Your task to perform on an android device: set the timer Image 0: 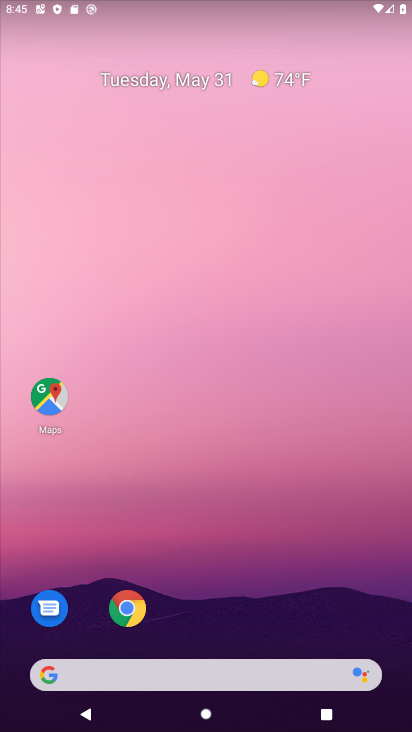
Step 0: drag from (208, 648) to (199, 129)
Your task to perform on an android device: set the timer Image 1: 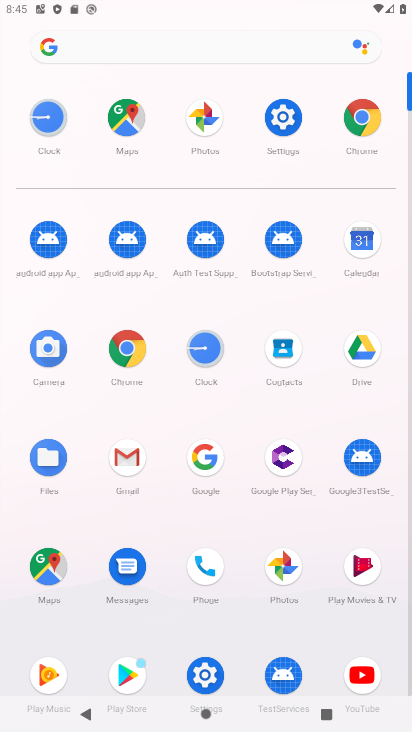
Step 1: click (205, 363)
Your task to perform on an android device: set the timer Image 2: 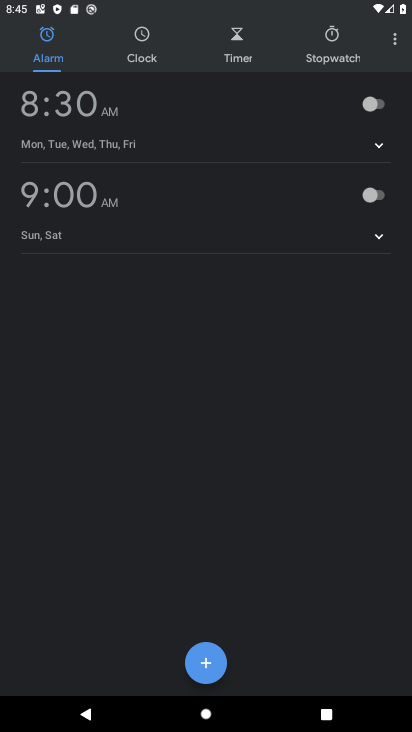
Step 2: click (391, 41)
Your task to perform on an android device: set the timer Image 3: 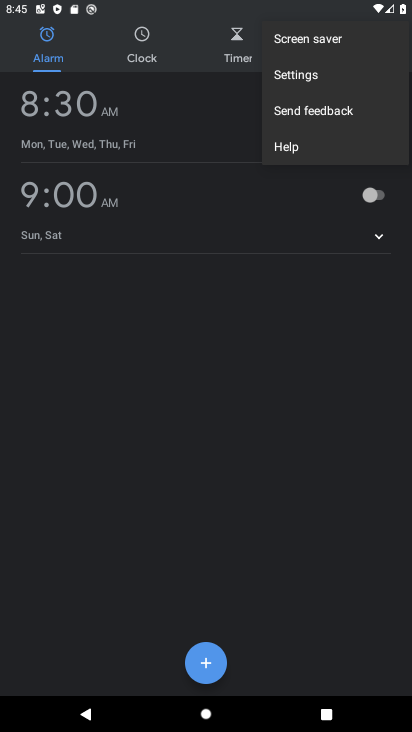
Step 3: click (298, 86)
Your task to perform on an android device: set the timer Image 4: 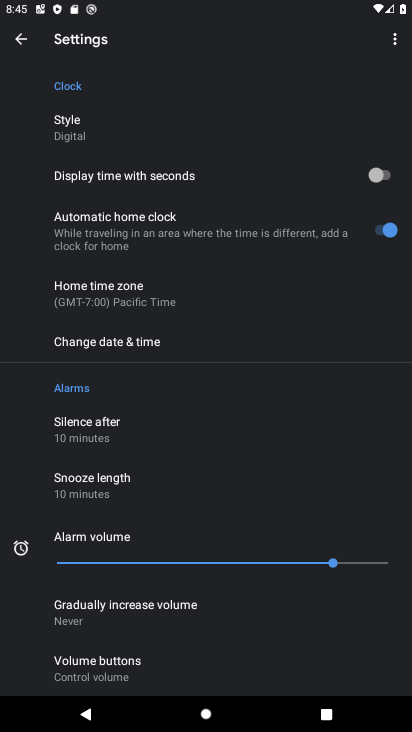
Step 4: drag from (130, 529) to (66, 130)
Your task to perform on an android device: set the timer Image 5: 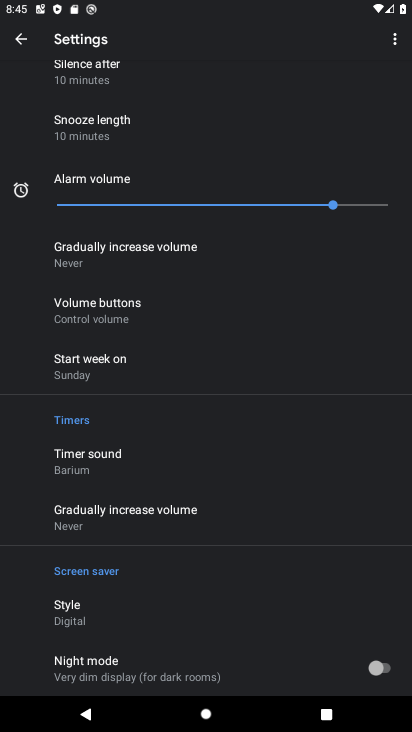
Step 5: click (80, 443)
Your task to perform on an android device: set the timer Image 6: 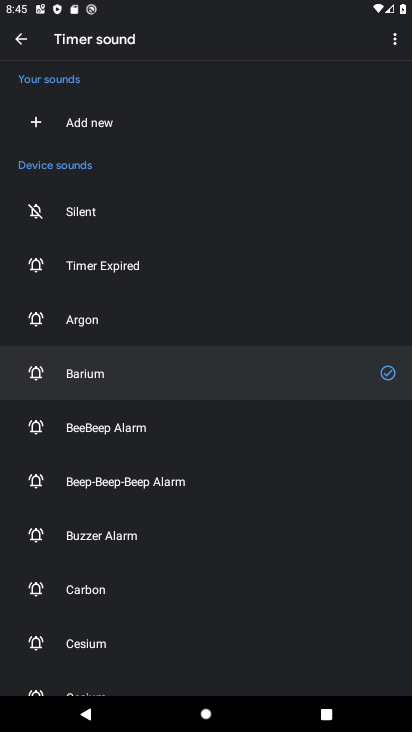
Step 6: click (13, 43)
Your task to perform on an android device: set the timer Image 7: 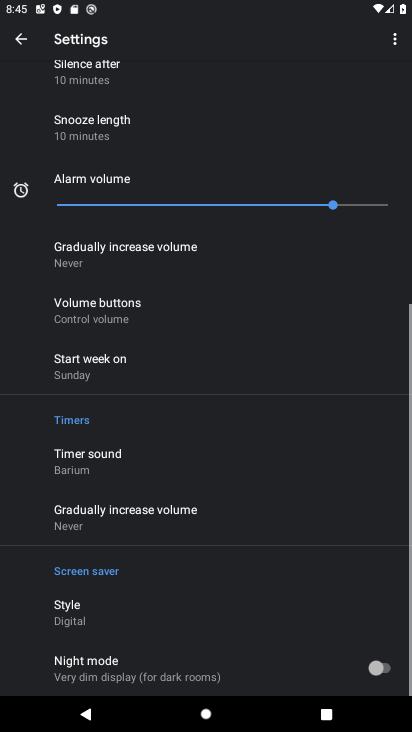
Step 7: click (31, 43)
Your task to perform on an android device: set the timer Image 8: 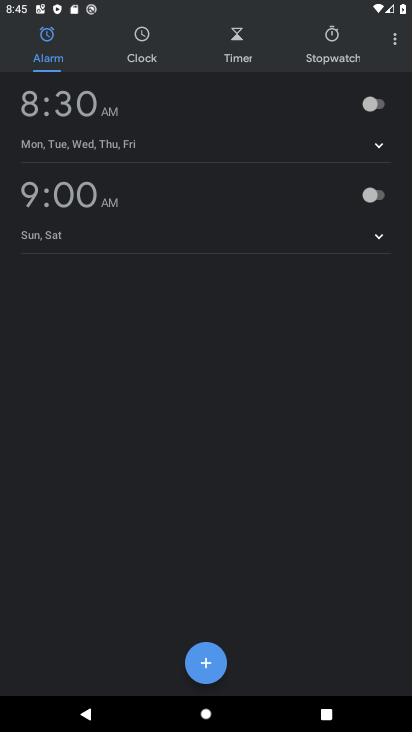
Step 8: click (231, 38)
Your task to perform on an android device: set the timer Image 9: 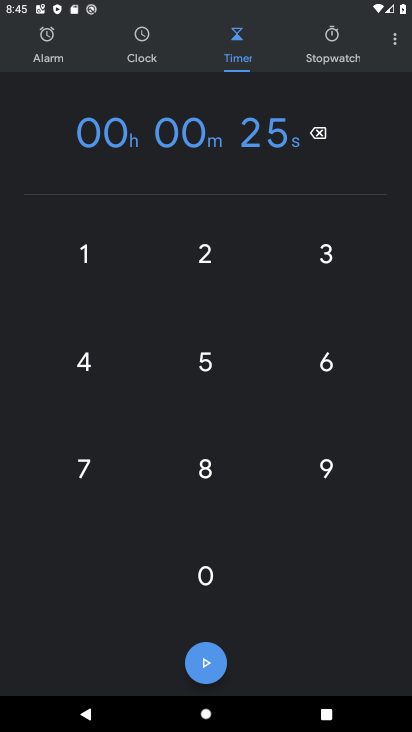
Step 9: task complete